Your task to perform on an android device: Check the weather Image 0: 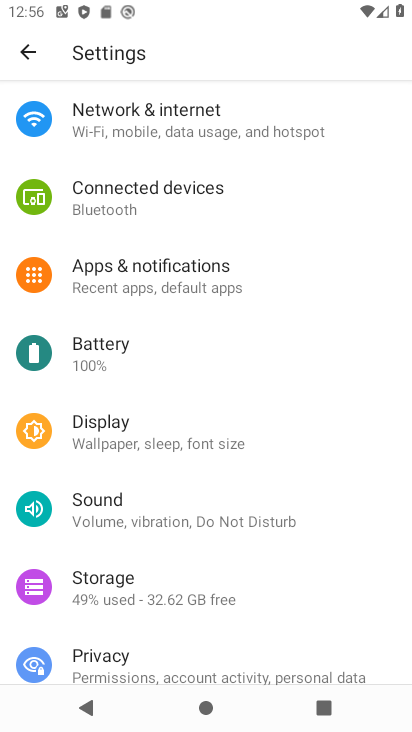
Step 0: press back button
Your task to perform on an android device: Check the weather Image 1: 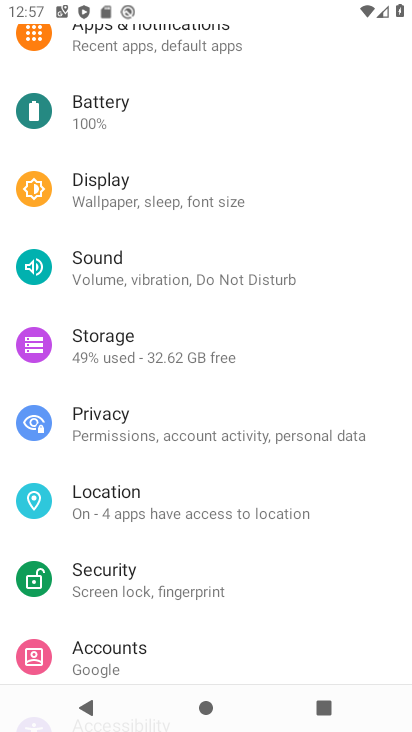
Step 1: press home button
Your task to perform on an android device: Check the weather Image 2: 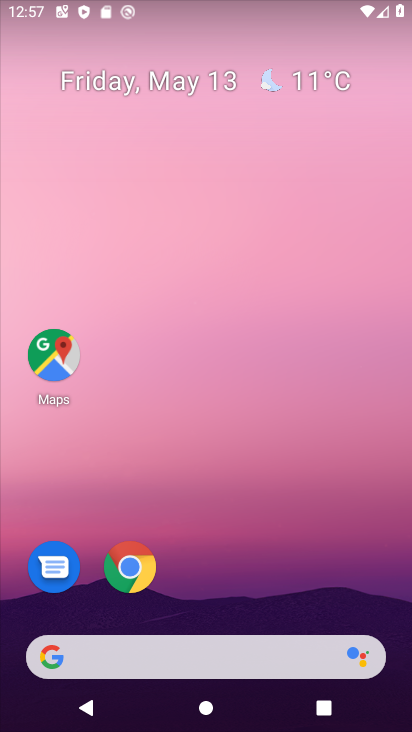
Step 2: drag from (180, 649) to (234, 182)
Your task to perform on an android device: Check the weather Image 3: 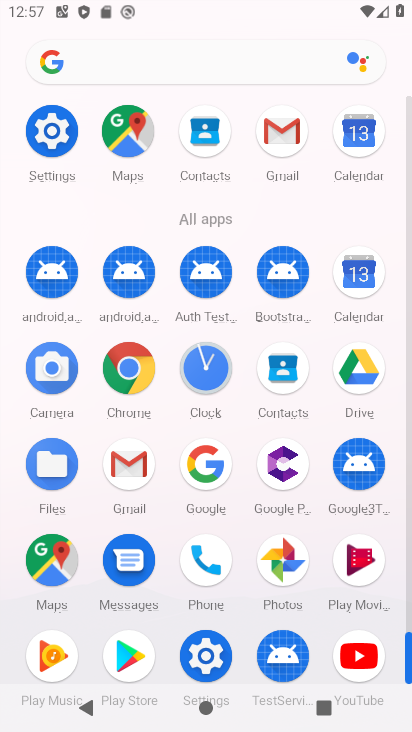
Step 3: click (195, 480)
Your task to perform on an android device: Check the weather Image 4: 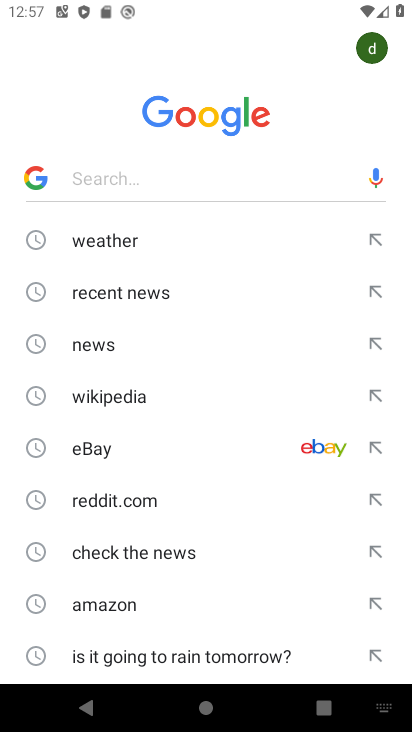
Step 4: click (132, 255)
Your task to perform on an android device: Check the weather Image 5: 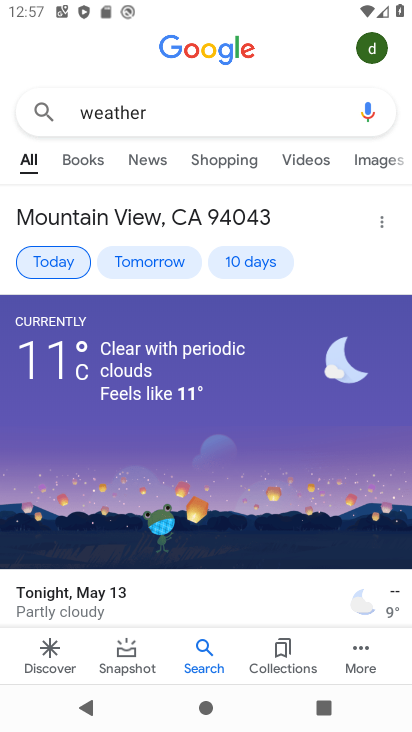
Step 5: task complete